Your task to perform on an android device: Open notification settings Image 0: 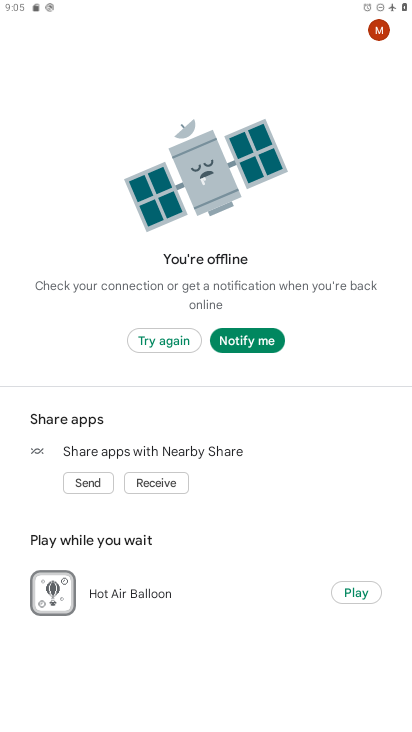
Step 0: press home button
Your task to perform on an android device: Open notification settings Image 1: 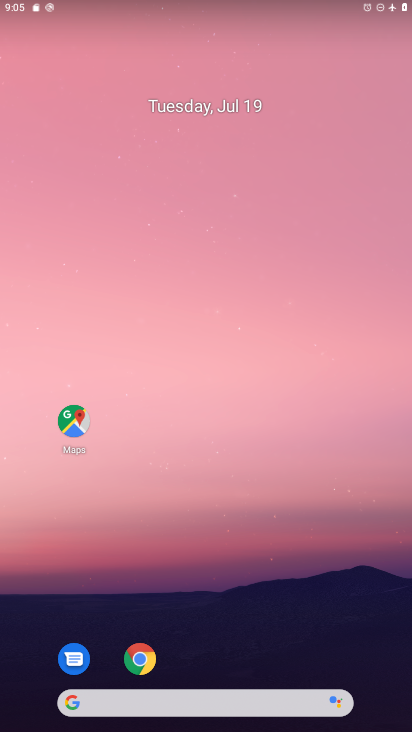
Step 1: drag from (233, 628) to (228, 228)
Your task to perform on an android device: Open notification settings Image 2: 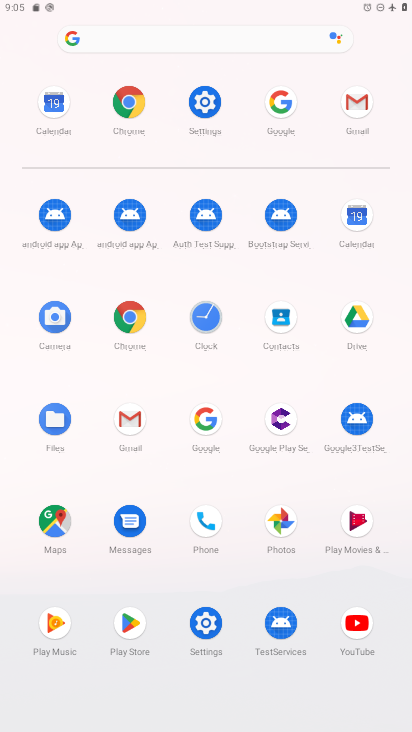
Step 2: click (204, 93)
Your task to perform on an android device: Open notification settings Image 3: 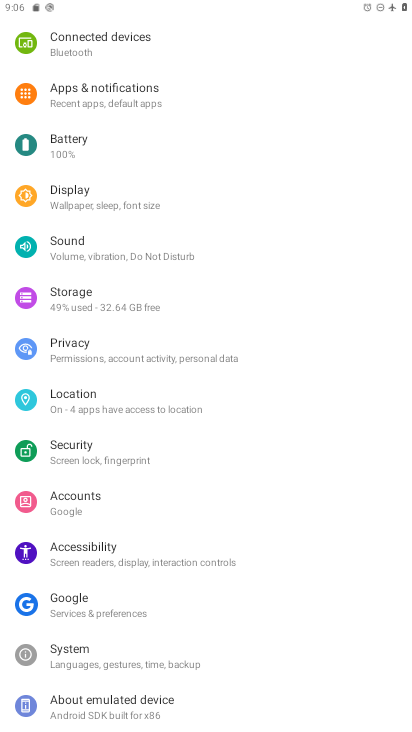
Step 3: click (107, 92)
Your task to perform on an android device: Open notification settings Image 4: 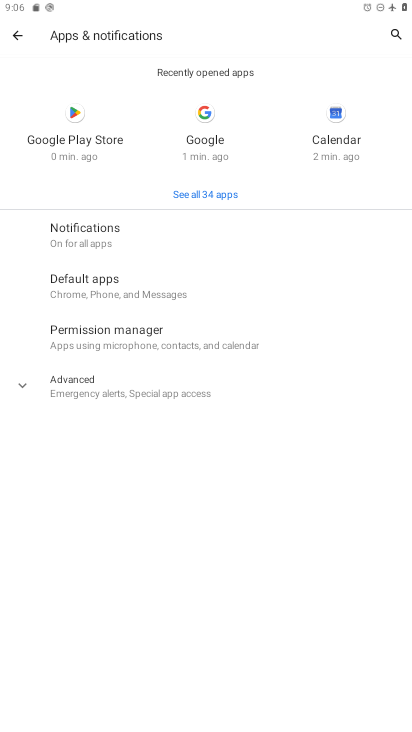
Step 4: click (146, 241)
Your task to perform on an android device: Open notification settings Image 5: 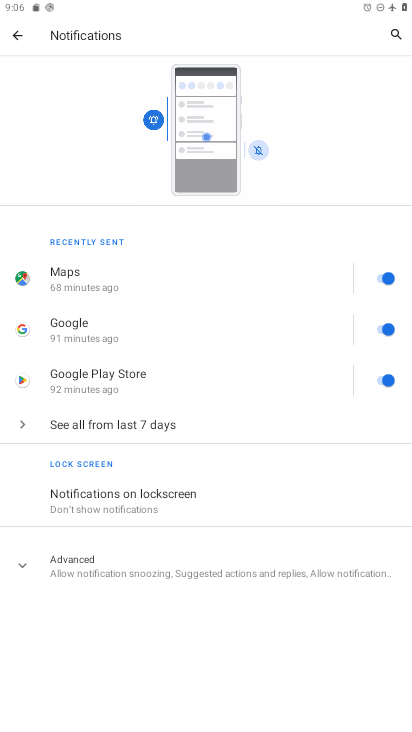
Step 5: task complete